Your task to perform on an android device: Open settings on Google Maps Image 0: 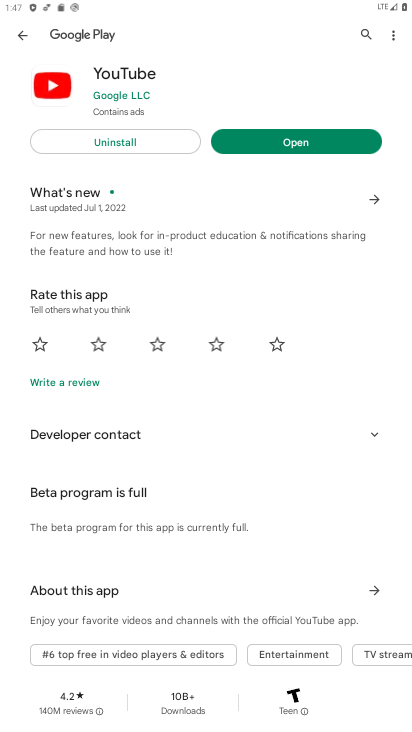
Step 0: press home button
Your task to perform on an android device: Open settings on Google Maps Image 1: 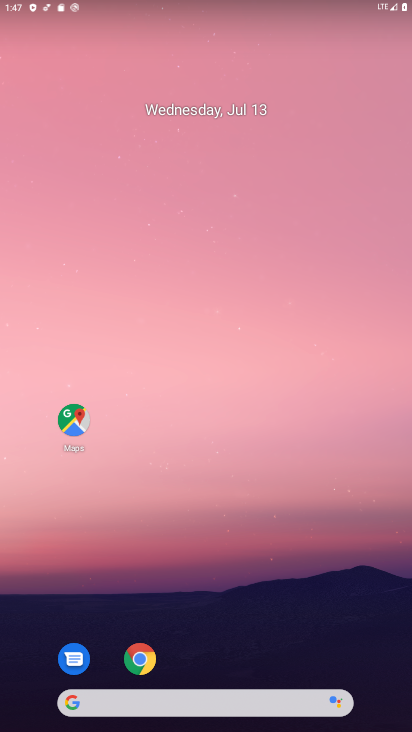
Step 1: click (71, 419)
Your task to perform on an android device: Open settings on Google Maps Image 2: 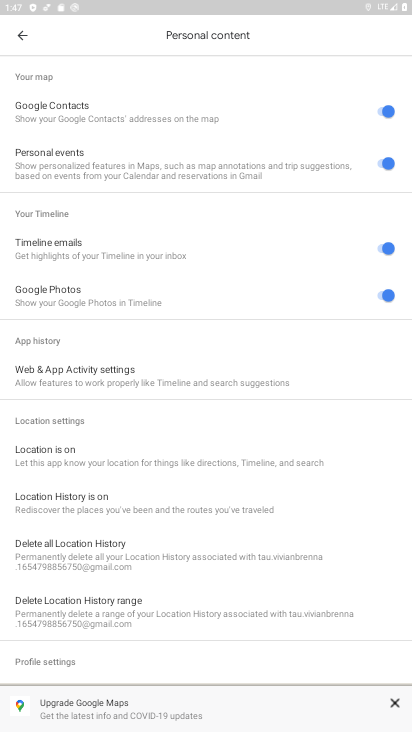
Step 2: press back button
Your task to perform on an android device: Open settings on Google Maps Image 3: 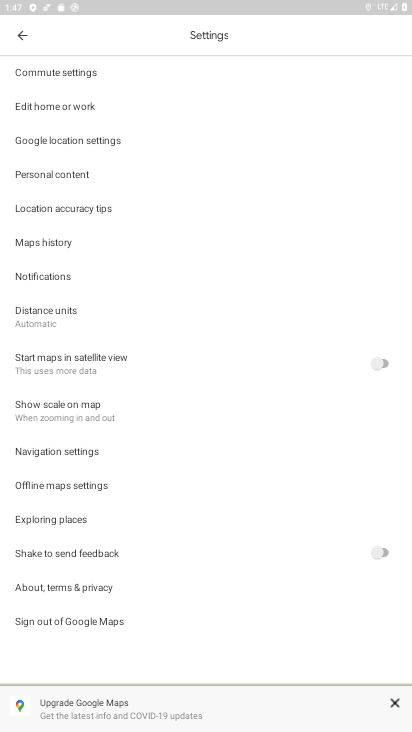
Step 3: click (216, 211)
Your task to perform on an android device: Open settings on Google Maps Image 4: 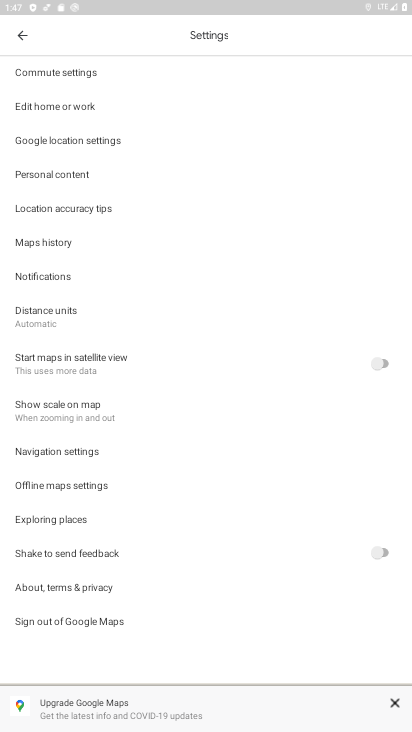
Step 4: task complete